Your task to perform on an android device: read, delete, or share a saved page in the chrome app Image 0: 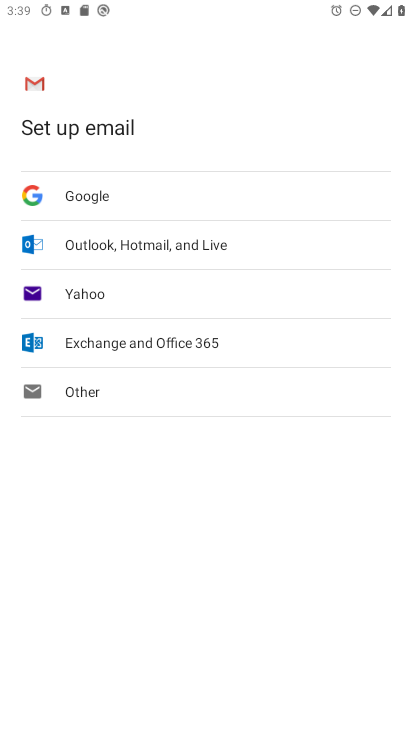
Step 0: press home button
Your task to perform on an android device: read, delete, or share a saved page in the chrome app Image 1: 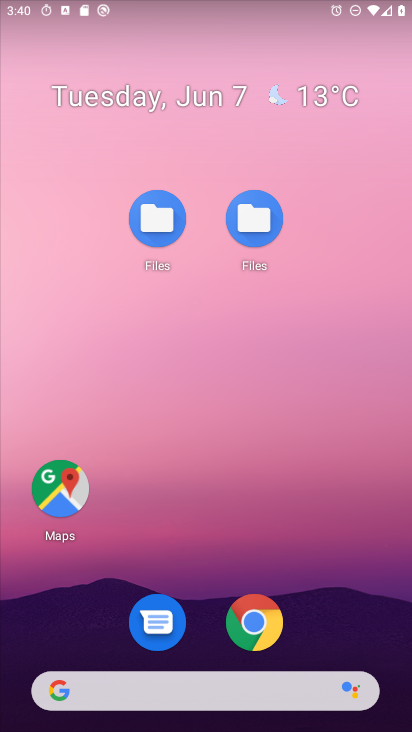
Step 1: click (259, 622)
Your task to perform on an android device: read, delete, or share a saved page in the chrome app Image 2: 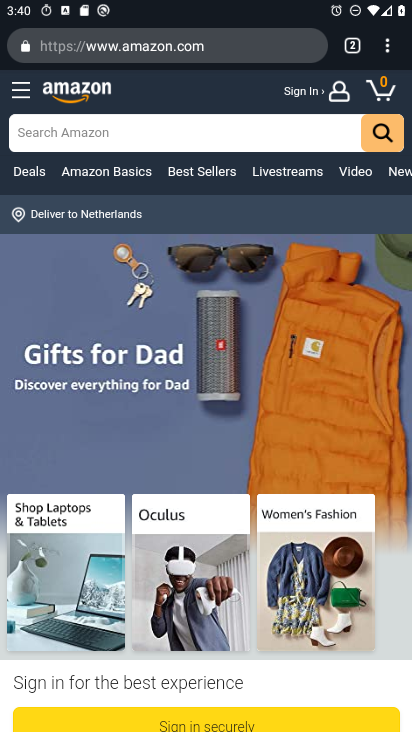
Step 2: click (392, 43)
Your task to perform on an android device: read, delete, or share a saved page in the chrome app Image 3: 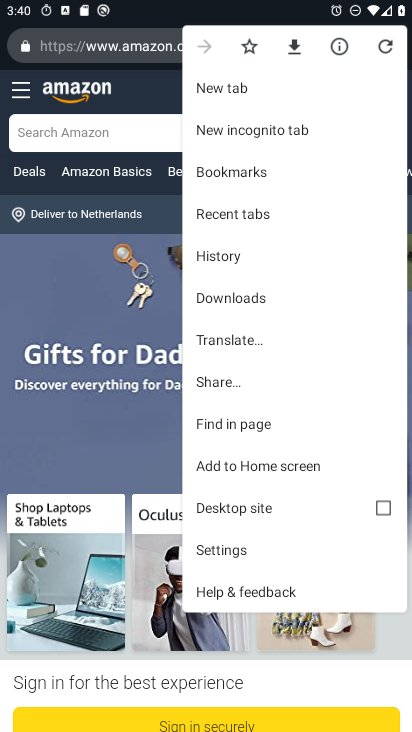
Step 3: click (236, 378)
Your task to perform on an android device: read, delete, or share a saved page in the chrome app Image 4: 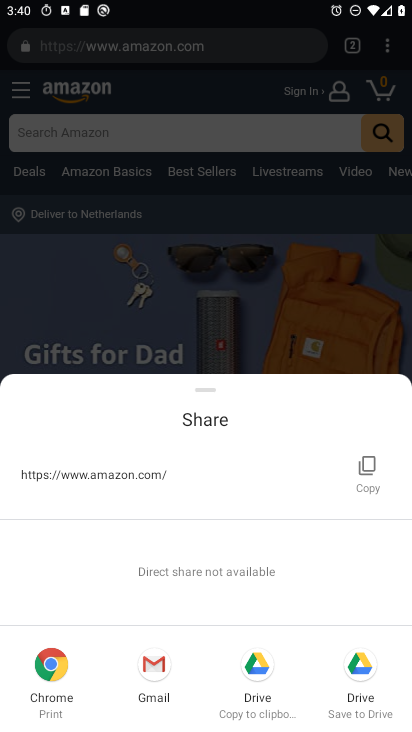
Step 4: task complete